Your task to perform on an android device: Turn on the flashlight Image 0: 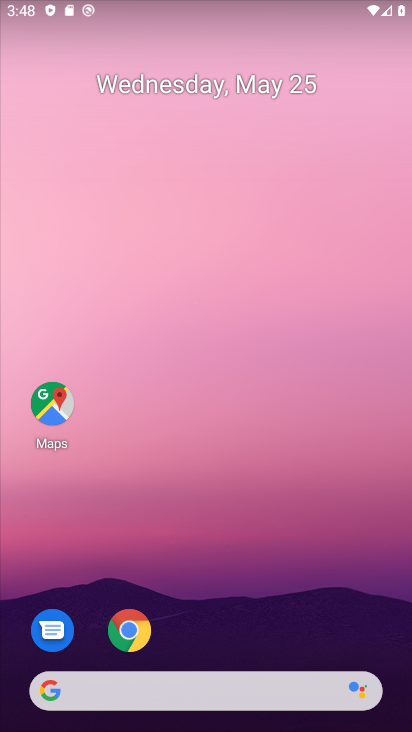
Step 0: drag from (320, 693) to (216, 103)
Your task to perform on an android device: Turn on the flashlight Image 1: 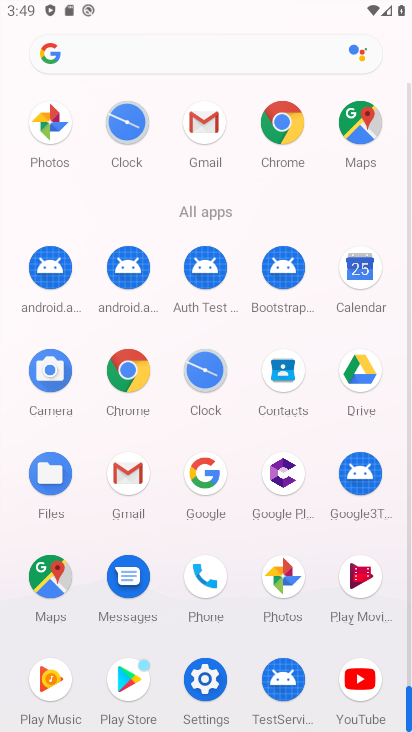
Step 1: task complete